Your task to perform on an android device: Open display settings Image 0: 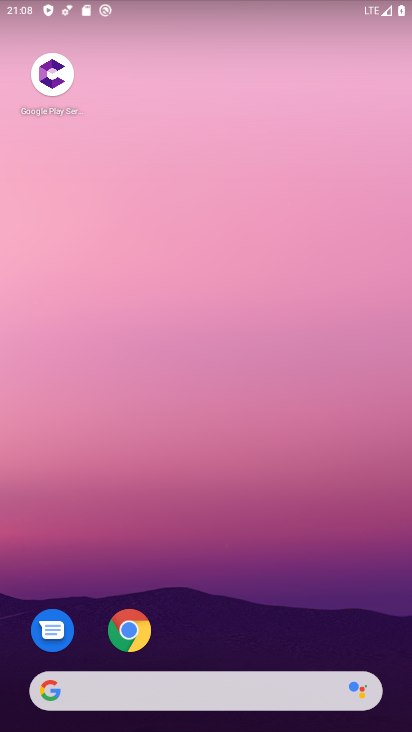
Step 0: drag from (180, 636) to (189, 1)
Your task to perform on an android device: Open display settings Image 1: 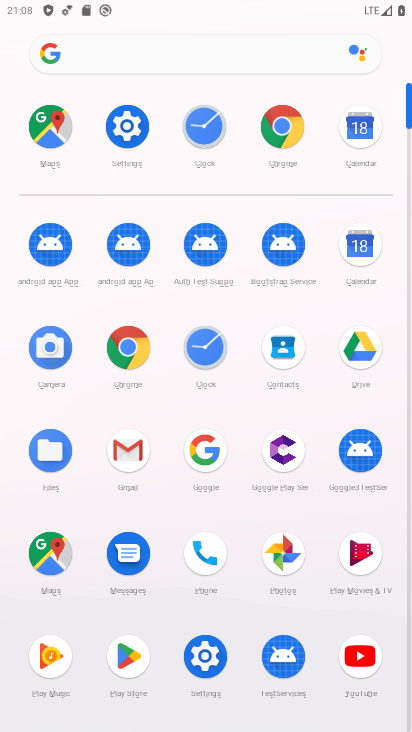
Step 1: click (125, 131)
Your task to perform on an android device: Open display settings Image 2: 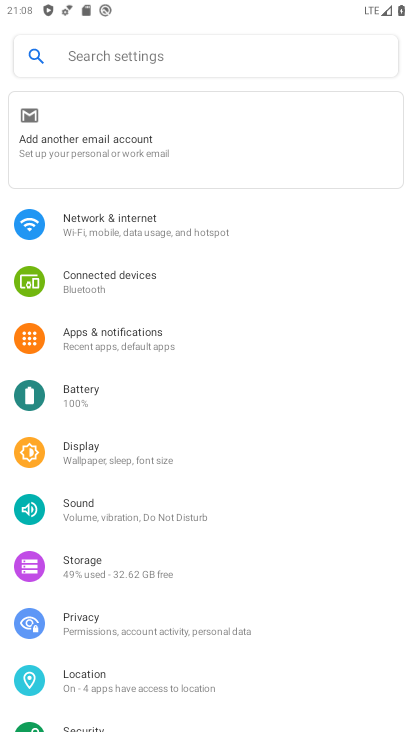
Step 2: click (132, 450)
Your task to perform on an android device: Open display settings Image 3: 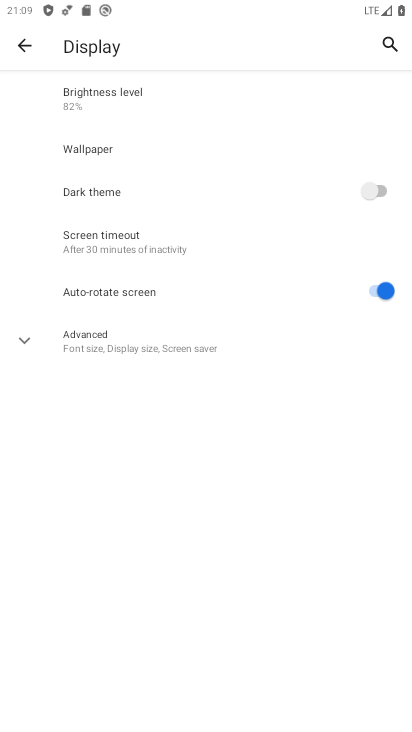
Step 3: task complete